Your task to perform on an android device: Open privacy settings Image 0: 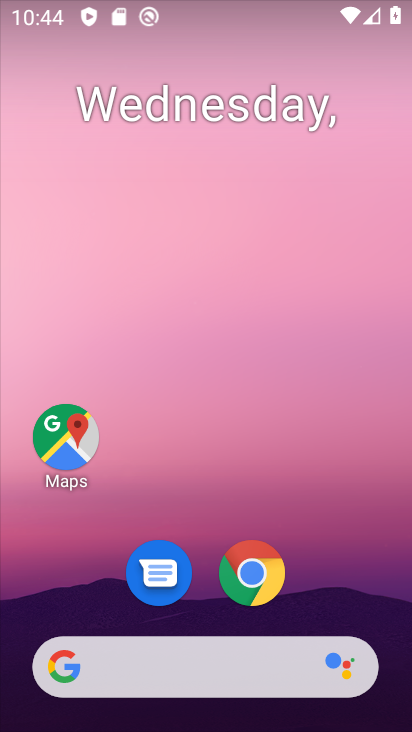
Step 0: drag from (379, 578) to (339, 133)
Your task to perform on an android device: Open privacy settings Image 1: 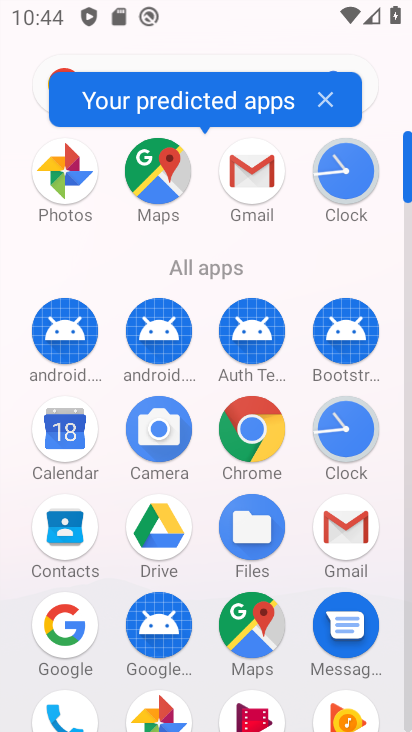
Step 1: click (405, 687)
Your task to perform on an android device: Open privacy settings Image 2: 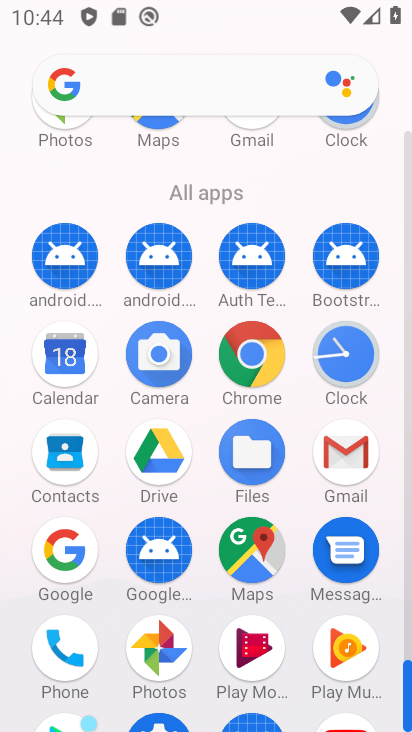
Step 2: drag from (389, 624) to (392, 395)
Your task to perform on an android device: Open privacy settings Image 3: 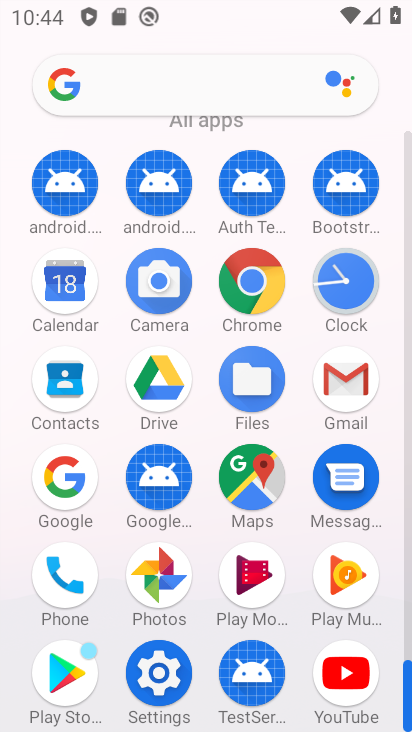
Step 3: click (169, 656)
Your task to perform on an android device: Open privacy settings Image 4: 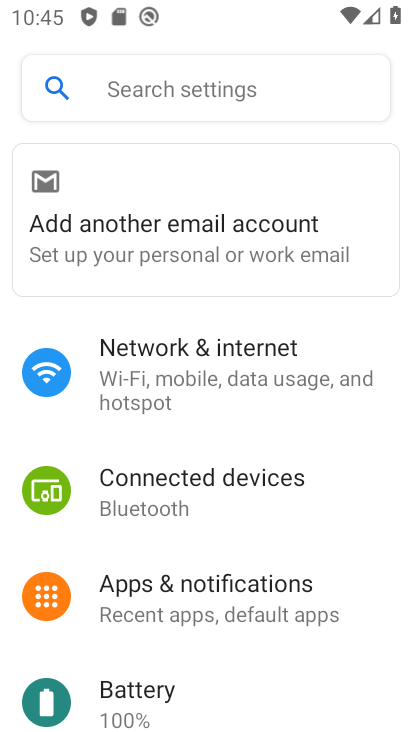
Step 4: drag from (257, 652) to (212, 138)
Your task to perform on an android device: Open privacy settings Image 5: 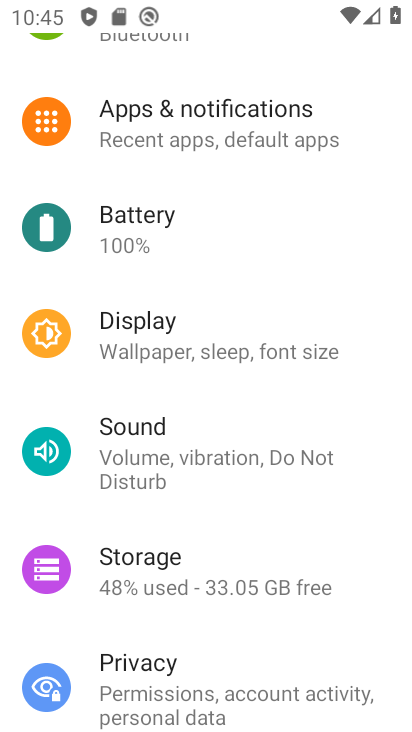
Step 5: click (274, 667)
Your task to perform on an android device: Open privacy settings Image 6: 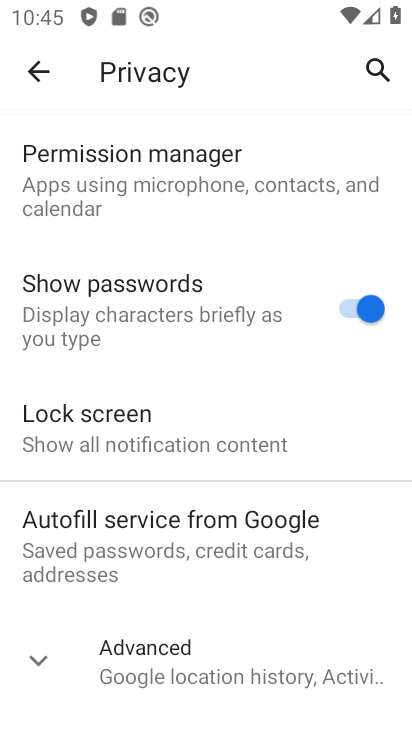
Step 6: task complete